Your task to perform on an android device: Open my contact list Image 0: 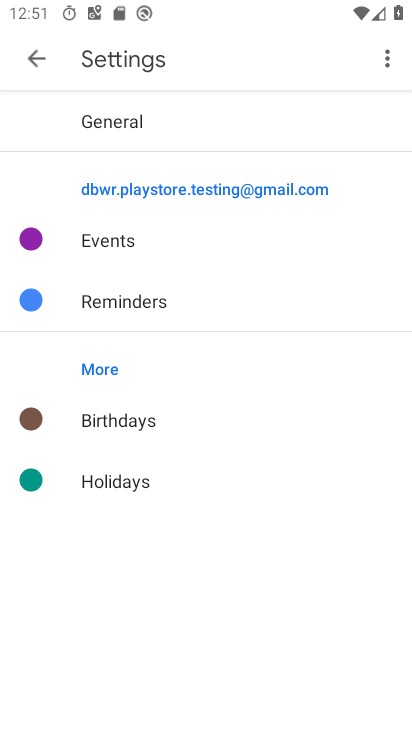
Step 0: press back button
Your task to perform on an android device: Open my contact list Image 1: 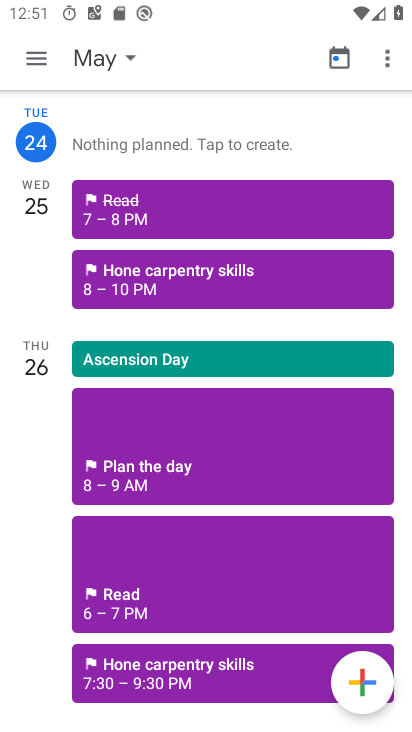
Step 1: press back button
Your task to perform on an android device: Open my contact list Image 2: 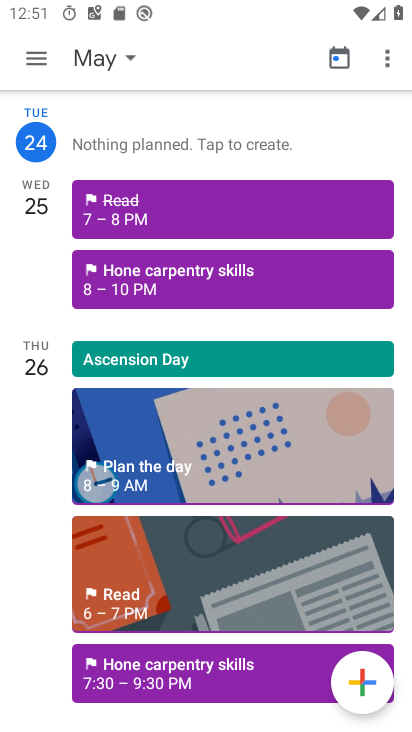
Step 2: press back button
Your task to perform on an android device: Open my contact list Image 3: 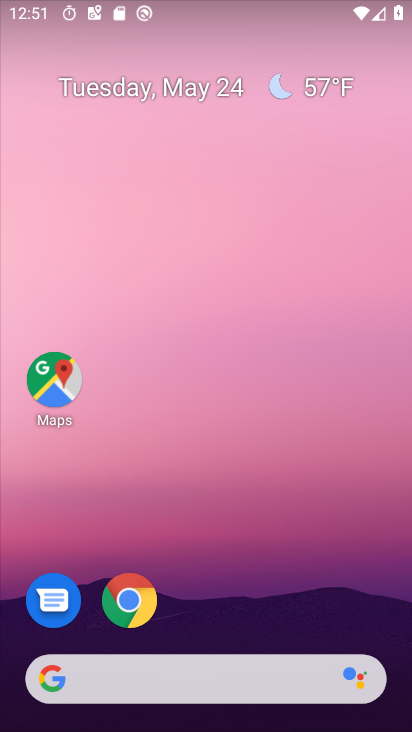
Step 3: drag from (221, 488) to (262, 101)
Your task to perform on an android device: Open my contact list Image 4: 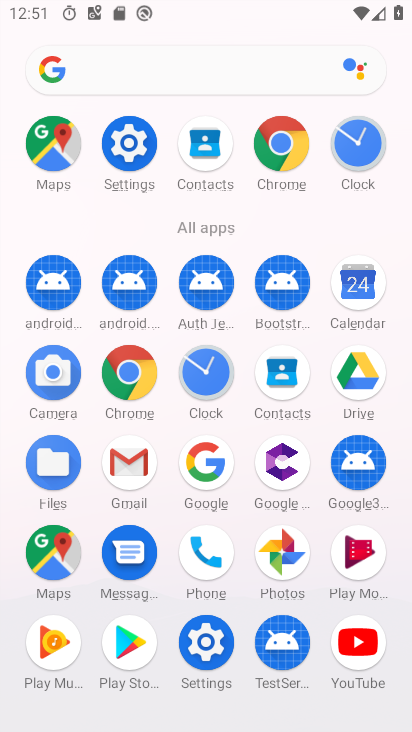
Step 4: click (283, 374)
Your task to perform on an android device: Open my contact list Image 5: 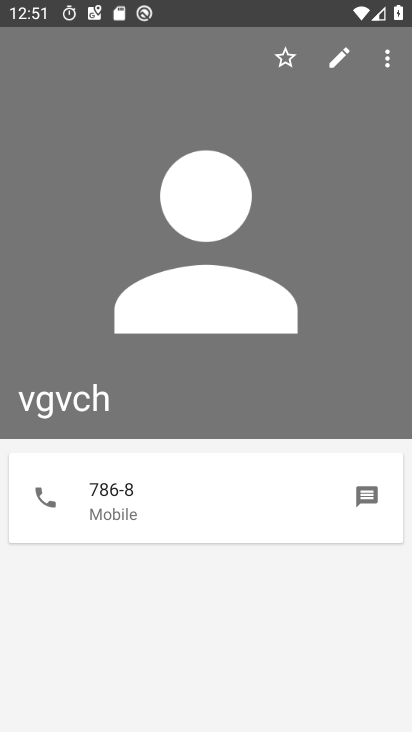
Step 5: task complete